Your task to perform on an android device: Open sound settings Image 0: 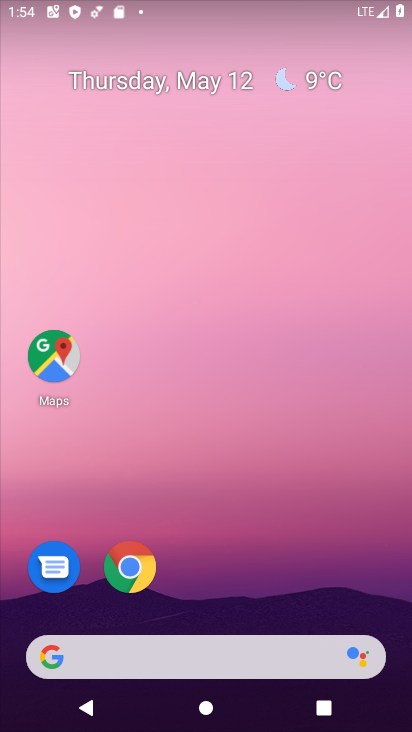
Step 0: drag from (207, 583) to (297, 113)
Your task to perform on an android device: Open sound settings Image 1: 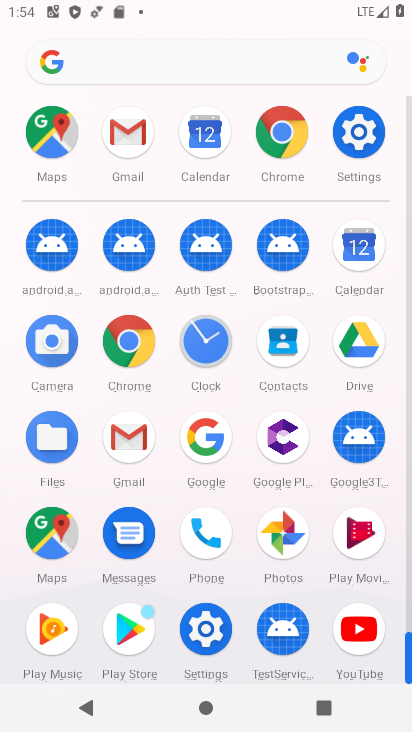
Step 1: click (357, 146)
Your task to perform on an android device: Open sound settings Image 2: 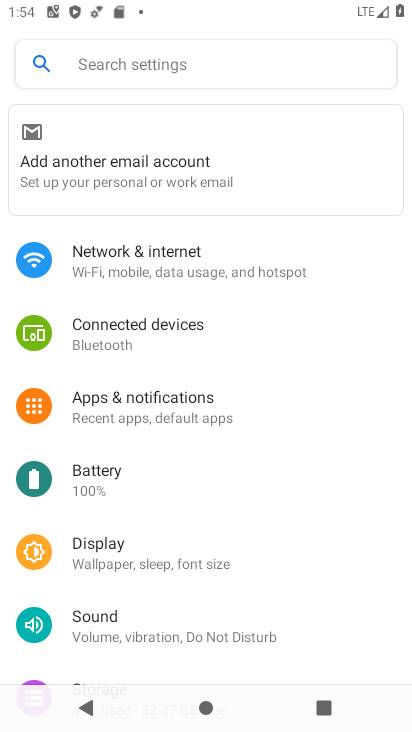
Step 2: drag from (129, 589) to (185, 223)
Your task to perform on an android device: Open sound settings Image 3: 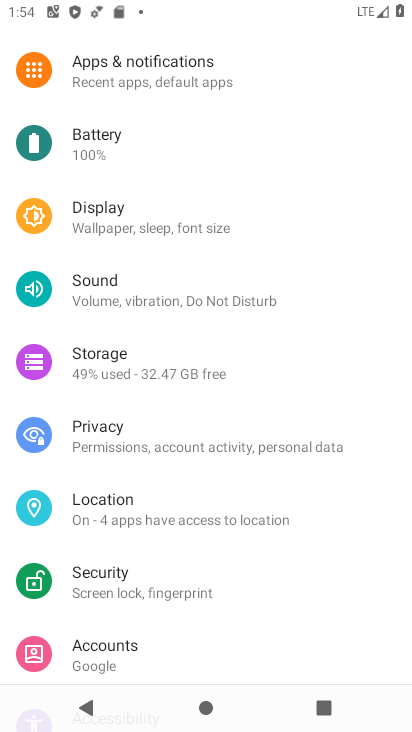
Step 3: click (109, 304)
Your task to perform on an android device: Open sound settings Image 4: 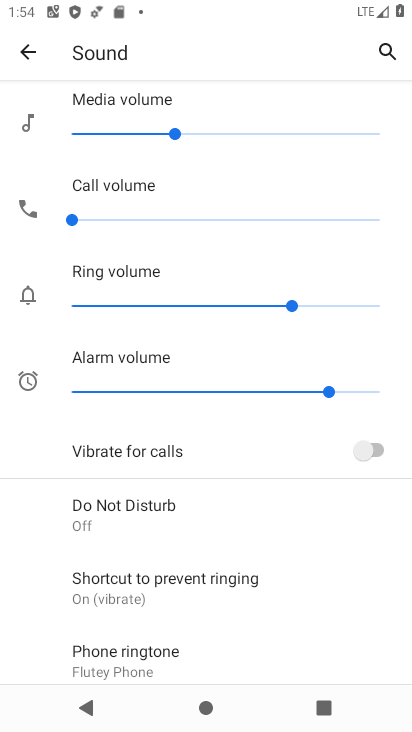
Step 4: task complete